Your task to perform on an android device: check android version Image 0: 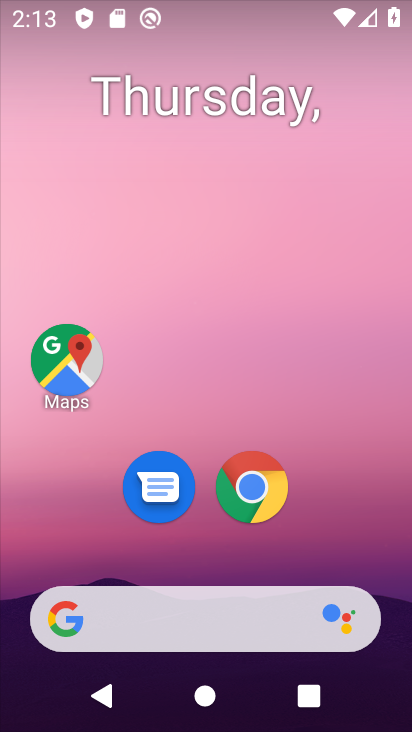
Step 0: drag from (385, 500) to (409, 104)
Your task to perform on an android device: check android version Image 1: 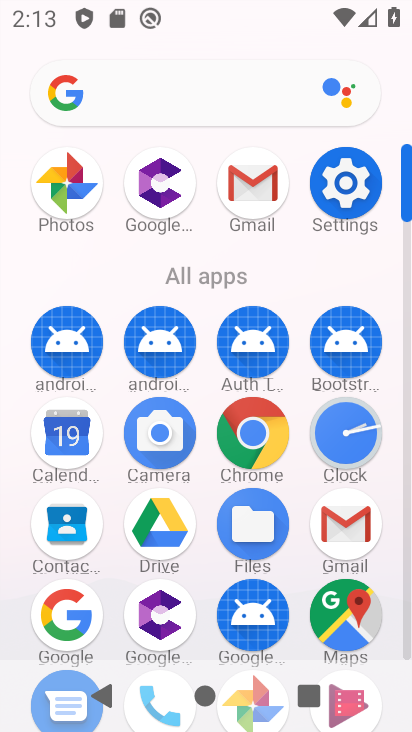
Step 1: click (367, 195)
Your task to perform on an android device: check android version Image 2: 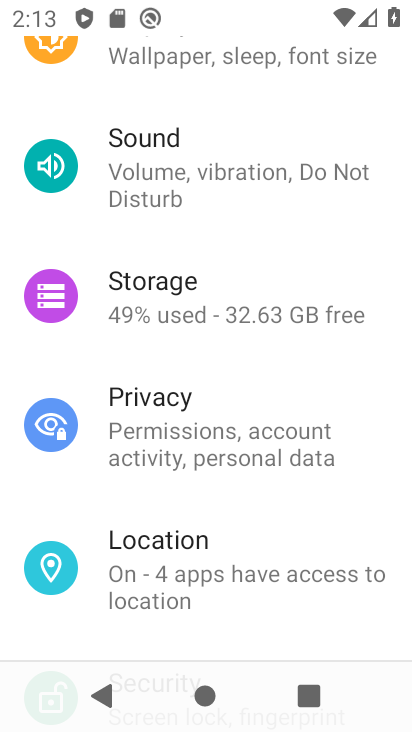
Step 2: drag from (236, 453) to (290, 139)
Your task to perform on an android device: check android version Image 3: 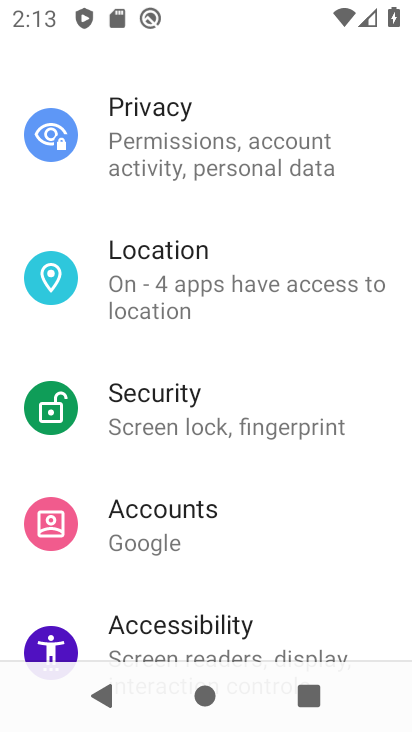
Step 3: drag from (216, 581) to (327, 273)
Your task to perform on an android device: check android version Image 4: 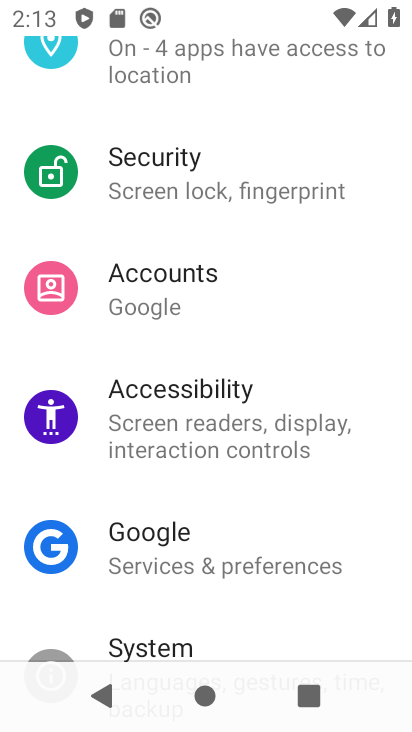
Step 4: drag from (234, 519) to (360, 196)
Your task to perform on an android device: check android version Image 5: 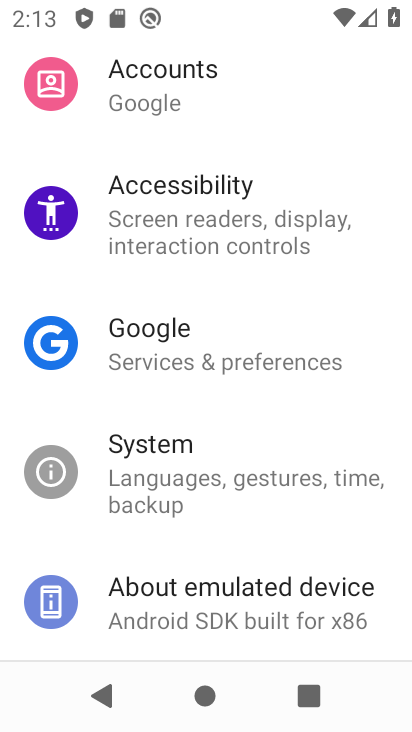
Step 5: click (258, 596)
Your task to perform on an android device: check android version Image 6: 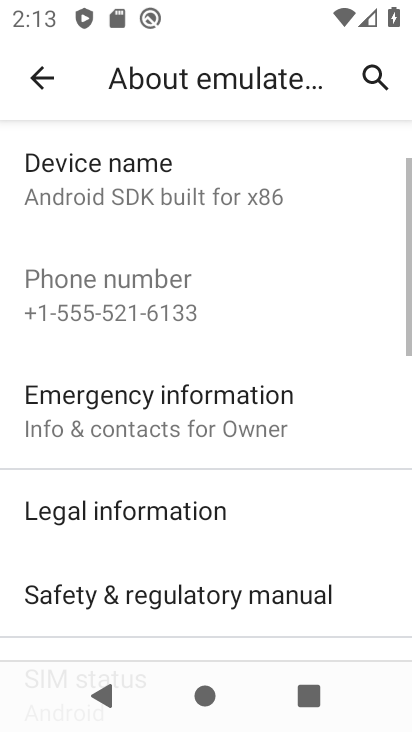
Step 6: drag from (232, 533) to (335, 158)
Your task to perform on an android device: check android version Image 7: 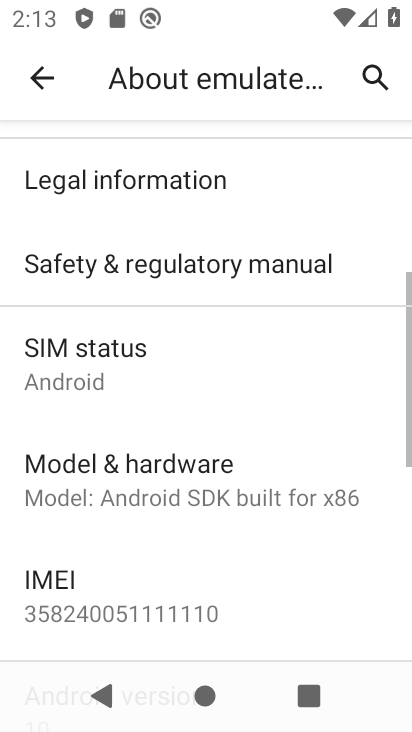
Step 7: drag from (208, 442) to (288, 98)
Your task to perform on an android device: check android version Image 8: 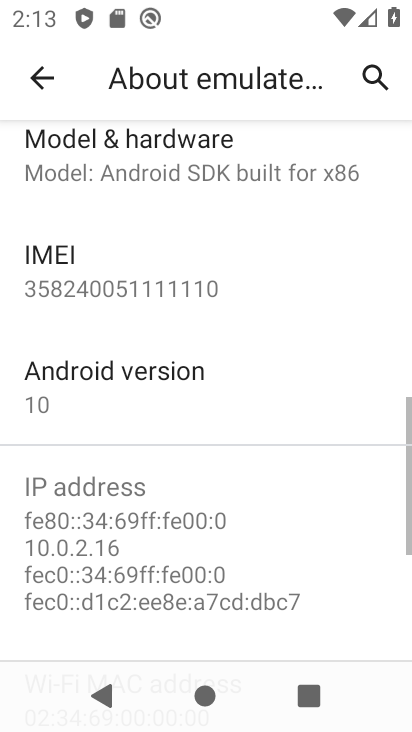
Step 8: click (217, 384)
Your task to perform on an android device: check android version Image 9: 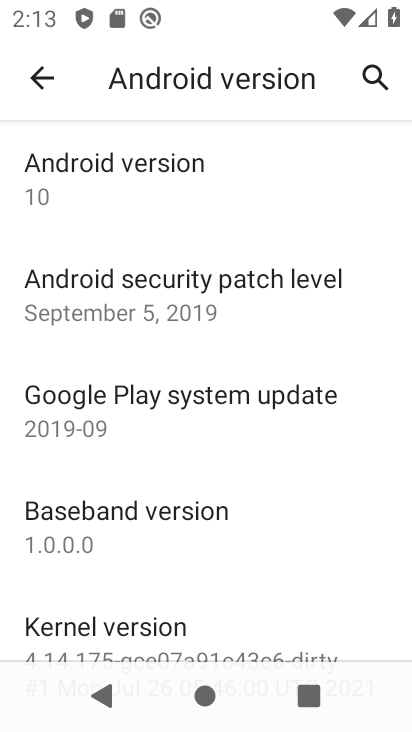
Step 9: task complete